Your task to perform on an android device: turn on location history Image 0: 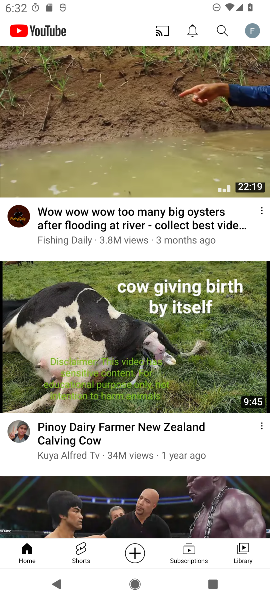
Step 0: press home button
Your task to perform on an android device: turn on location history Image 1: 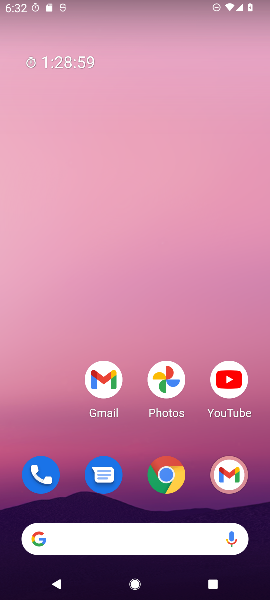
Step 1: drag from (65, 442) to (59, 171)
Your task to perform on an android device: turn on location history Image 2: 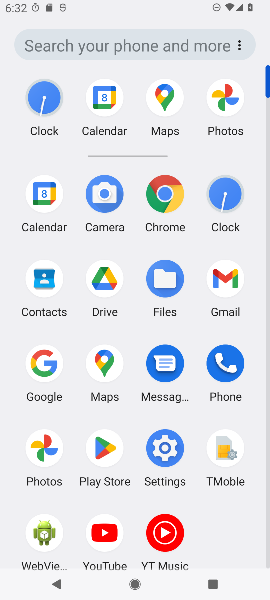
Step 2: click (163, 454)
Your task to perform on an android device: turn on location history Image 3: 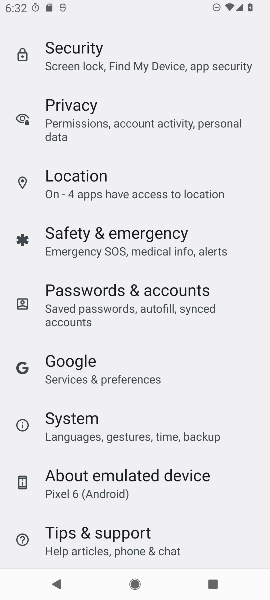
Step 3: drag from (245, 196) to (246, 276)
Your task to perform on an android device: turn on location history Image 4: 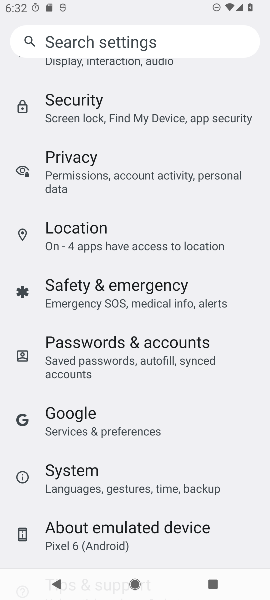
Step 4: drag from (251, 189) to (249, 293)
Your task to perform on an android device: turn on location history Image 5: 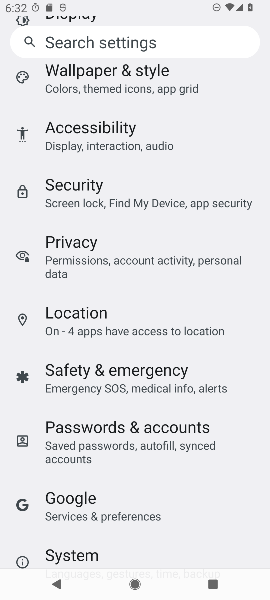
Step 5: click (248, 240)
Your task to perform on an android device: turn on location history Image 6: 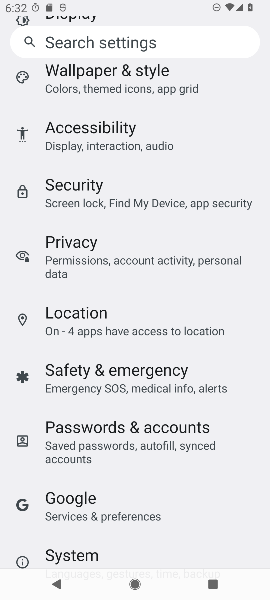
Step 6: drag from (248, 120) to (254, 267)
Your task to perform on an android device: turn on location history Image 7: 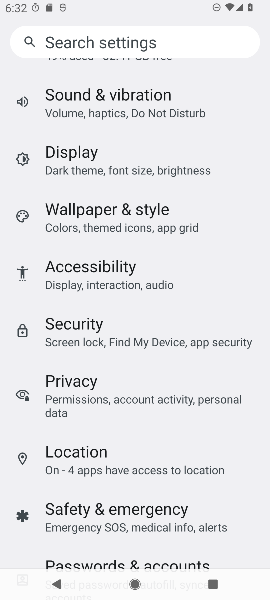
Step 7: drag from (244, 109) to (242, 251)
Your task to perform on an android device: turn on location history Image 8: 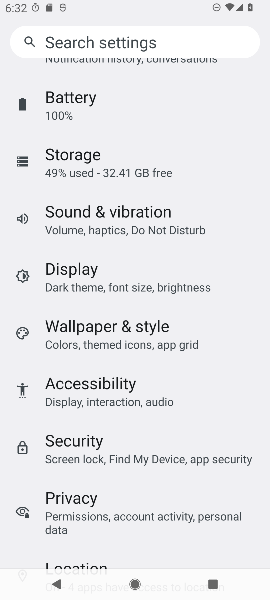
Step 8: drag from (234, 122) to (243, 253)
Your task to perform on an android device: turn on location history Image 9: 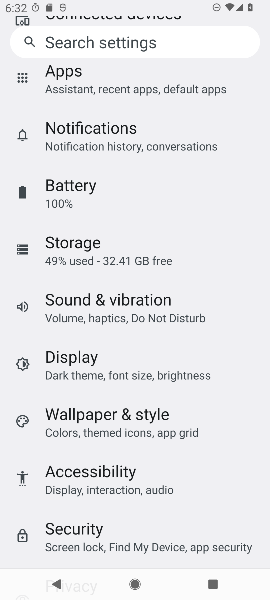
Step 9: drag from (239, 115) to (242, 215)
Your task to perform on an android device: turn on location history Image 10: 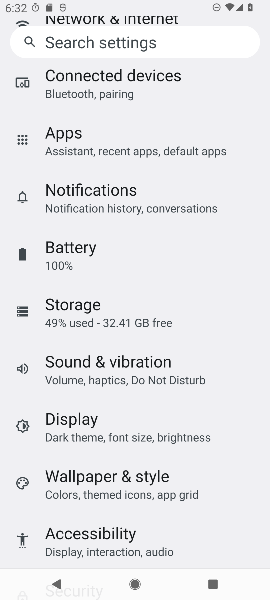
Step 10: drag from (237, 328) to (242, 221)
Your task to perform on an android device: turn on location history Image 11: 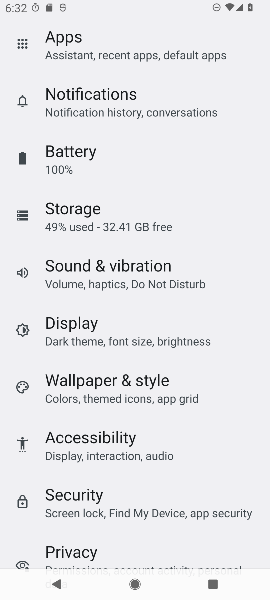
Step 11: drag from (238, 355) to (230, 238)
Your task to perform on an android device: turn on location history Image 12: 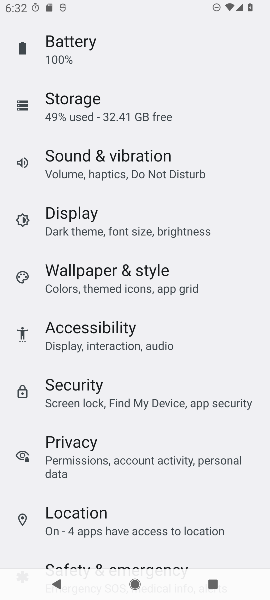
Step 12: drag from (227, 360) to (235, 233)
Your task to perform on an android device: turn on location history Image 13: 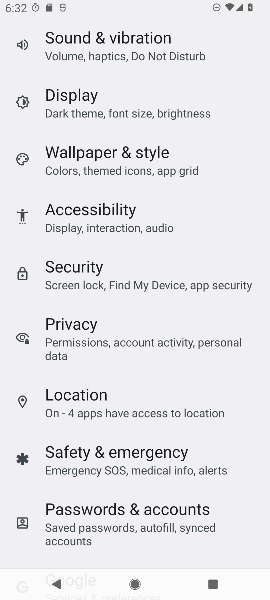
Step 13: drag from (237, 425) to (239, 285)
Your task to perform on an android device: turn on location history Image 14: 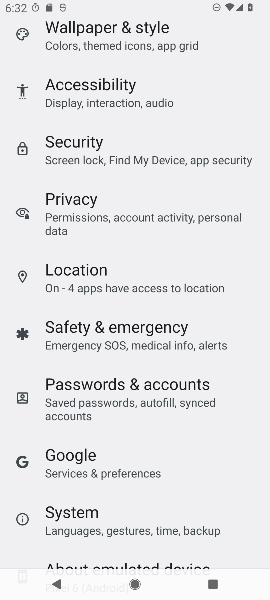
Step 14: drag from (233, 421) to (233, 306)
Your task to perform on an android device: turn on location history Image 15: 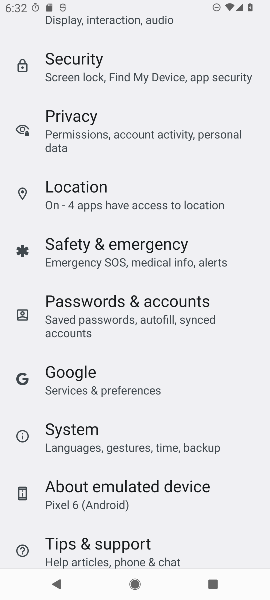
Step 15: click (143, 196)
Your task to perform on an android device: turn on location history Image 16: 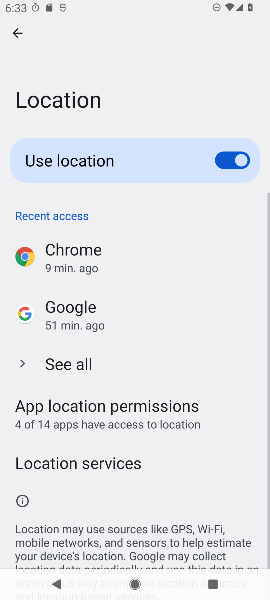
Step 16: drag from (203, 372) to (219, 200)
Your task to perform on an android device: turn on location history Image 17: 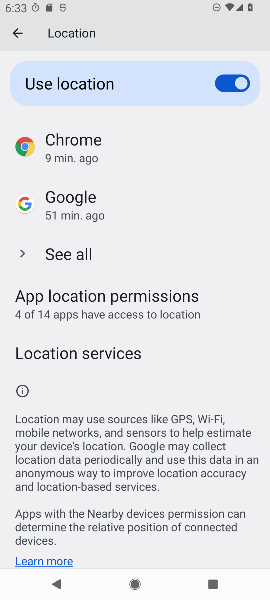
Step 17: click (133, 356)
Your task to perform on an android device: turn on location history Image 18: 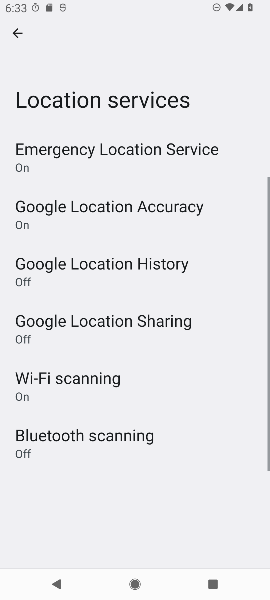
Step 18: drag from (207, 409) to (233, 248)
Your task to perform on an android device: turn on location history Image 19: 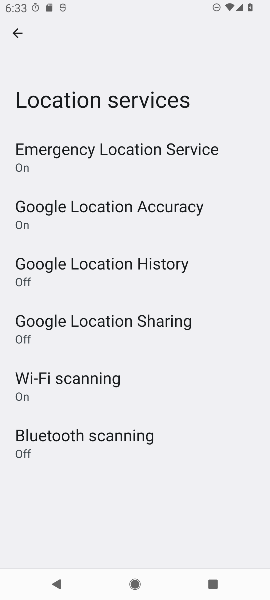
Step 19: click (119, 259)
Your task to perform on an android device: turn on location history Image 20: 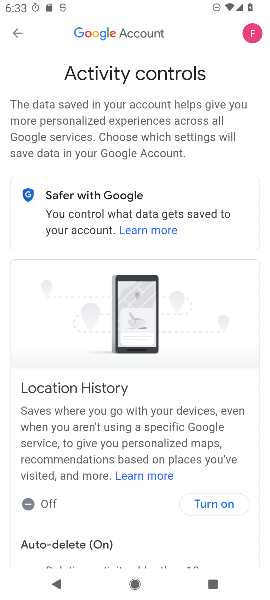
Step 20: click (207, 507)
Your task to perform on an android device: turn on location history Image 21: 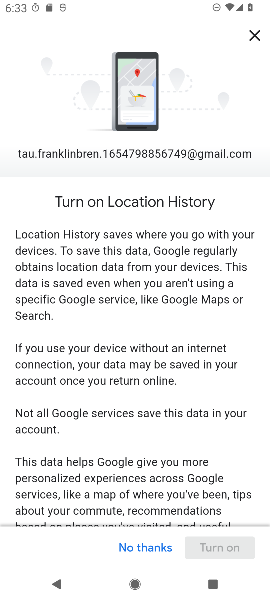
Step 21: drag from (188, 464) to (190, 264)
Your task to perform on an android device: turn on location history Image 22: 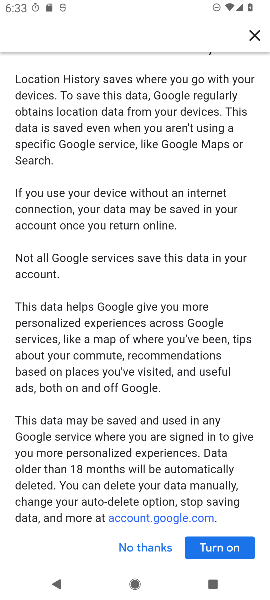
Step 22: drag from (179, 434) to (177, 266)
Your task to perform on an android device: turn on location history Image 23: 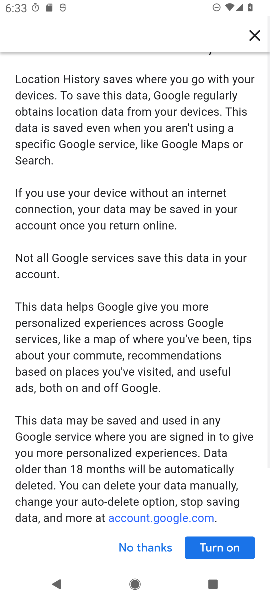
Step 23: click (234, 549)
Your task to perform on an android device: turn on location history Image 24: 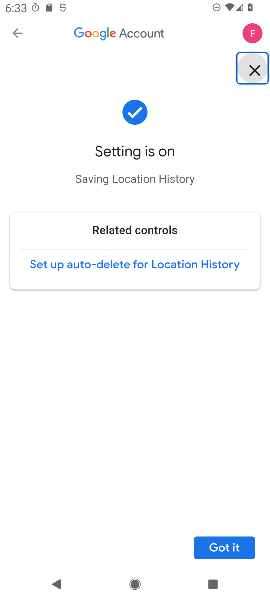
Step 24: task complete